Your task to perform on an android device: create a new album in the google photos Image 0: 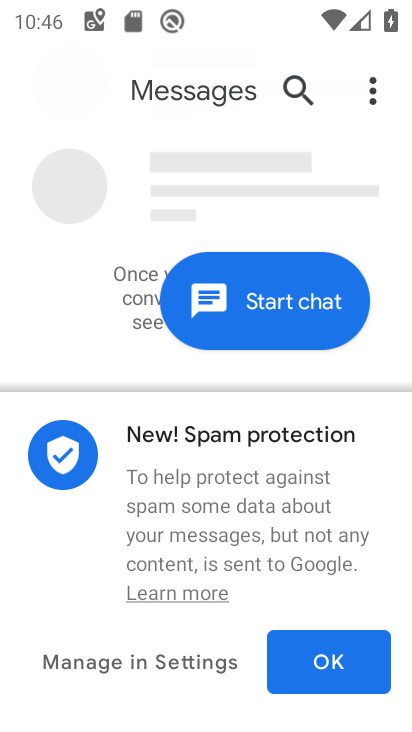
Step 0: drag from (242, 640) to (348, 34)
Your task to perform on an android device: create a new album in the google photos Image 1: 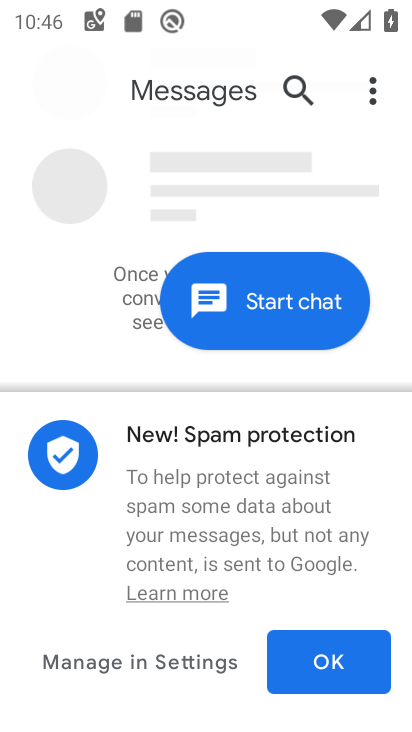
Step 1: press home button
Your task to perform on an android device: create a new album in the google photos Image 2: 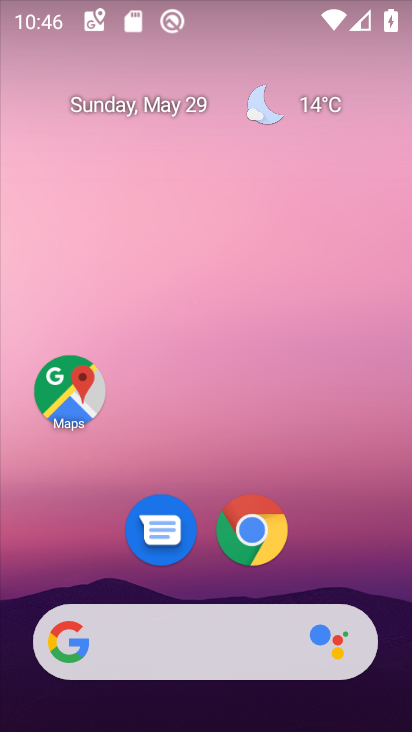
Step 2: drag from (213, 628) to (196, 17)
Your task to perform on an android device: create a new album in the google photos Image 3: 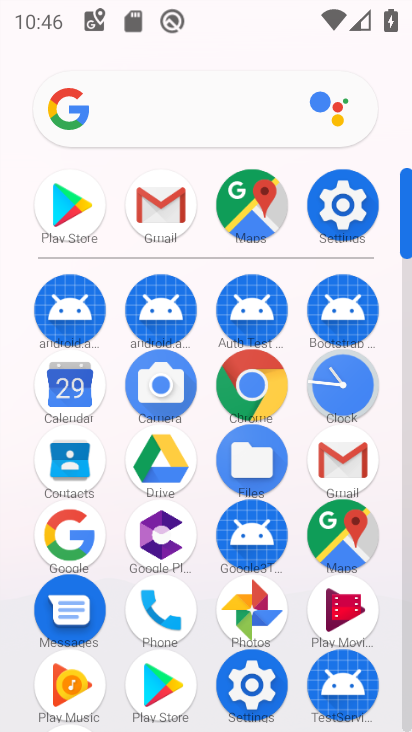
Step 3: click (249, 609)
Your task to perform on an android device: create a new album in the google photos Image 4: 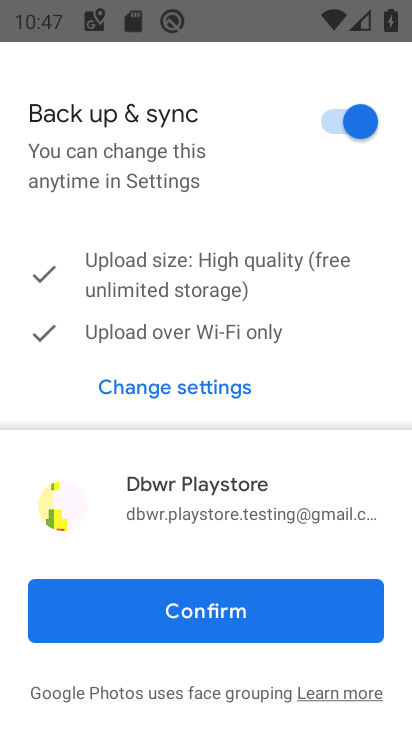
Step 4: click (207, 609)
Your task to perform on an android device: create a new album in the google photos Image 5: 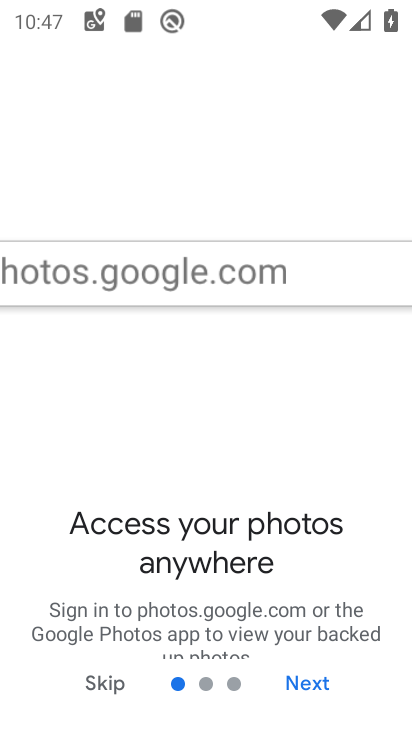
Step 5: click (98, 684)
Your task to perform on an android device: create a new album in the google photos Image 6: 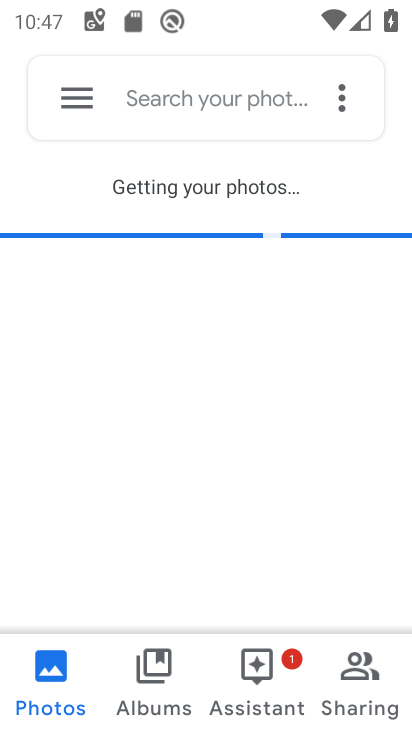
Step 6: click (254, 667)
Your task to perform on an android device: create a new album in the google photos Image 7: 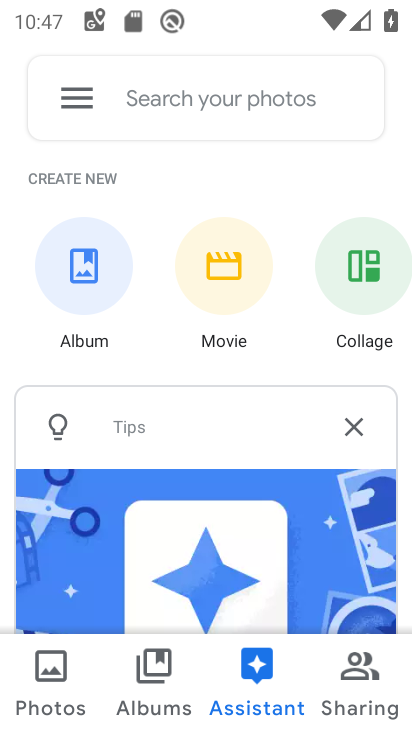
Step 7: click (88, 277)
Your task to perform on an android device: create a new album in the google photos Image 8: 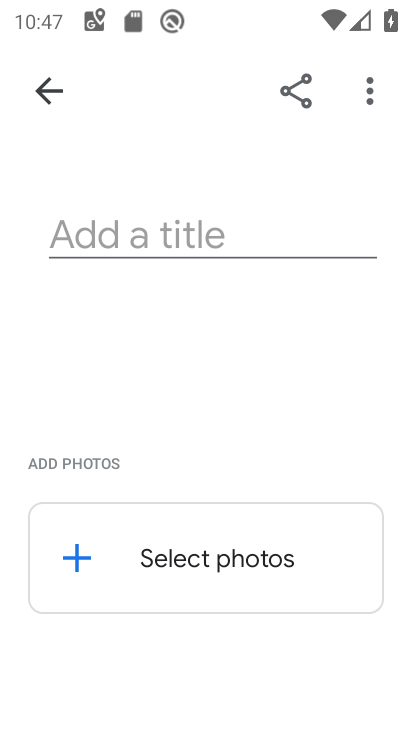
Step 8: click (202, 241)
Your task to perform on an android device: create a new album in the google photos Image 9: 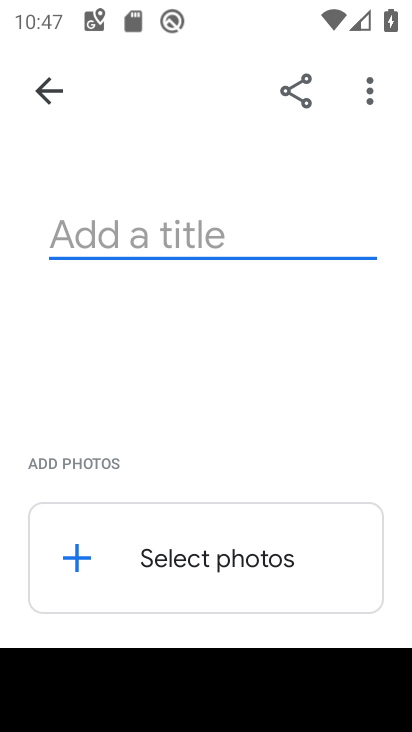
Step 9: type "jgkds"
Your task to perform on an android device: create a new album in the google photos Image 10: 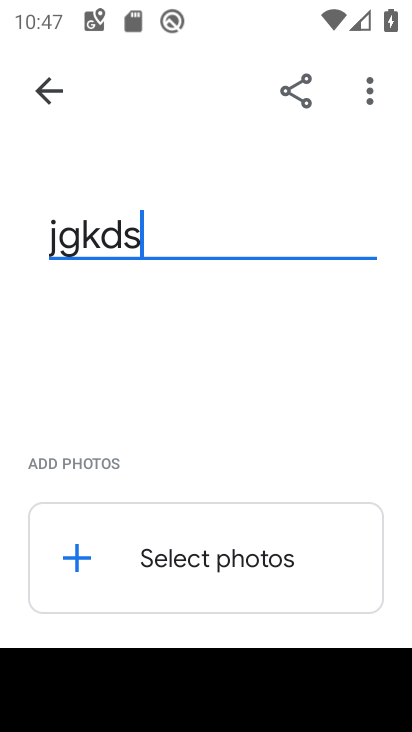
Step 10: click (235, 553)
Your task to perform on an android device: create a new album in the google photos Image 11: 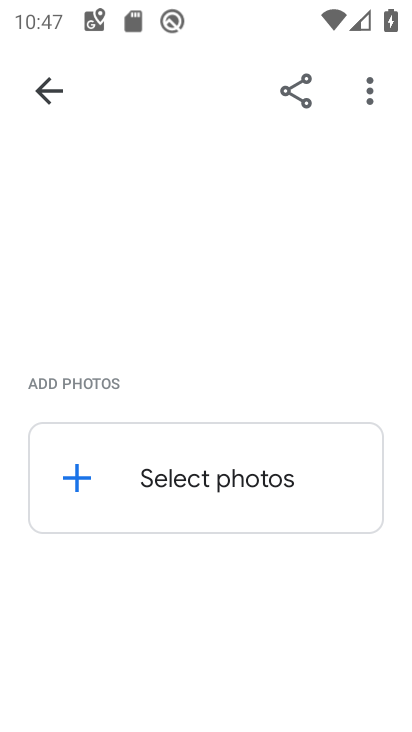
Step 11: click (76, 530)
Your task to perform on an android device: create a new album in the google photos Image 12: 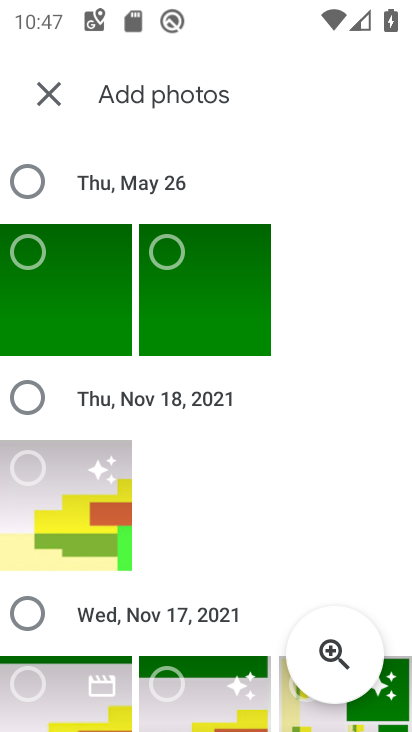
Step 12: click (26, 172)
Your task to perform on an android device: create a new album in the google photos Image 13: 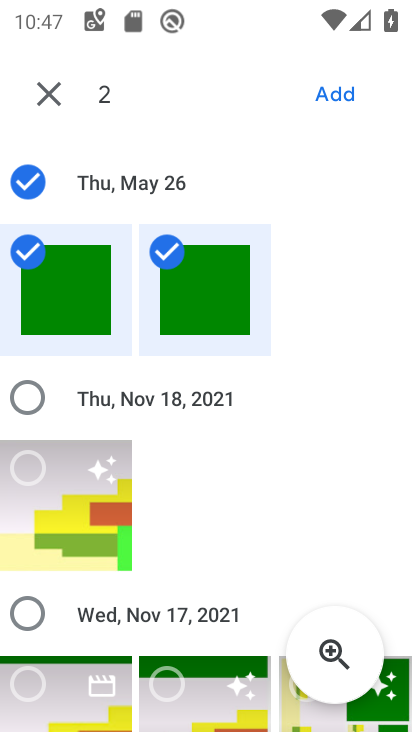
Step 13: click (18, 416)
Your task to perform on an android device: create a new album in the google photos Image 14: 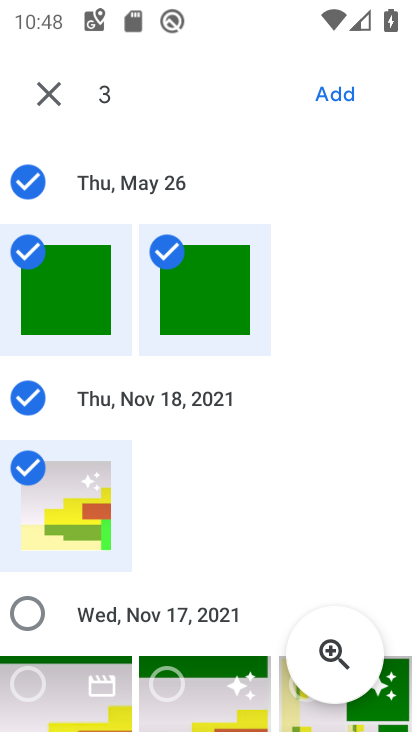
Step 14: click (325, 94)
Your task to perform on an android device: create a new album in the google photos Image 15: 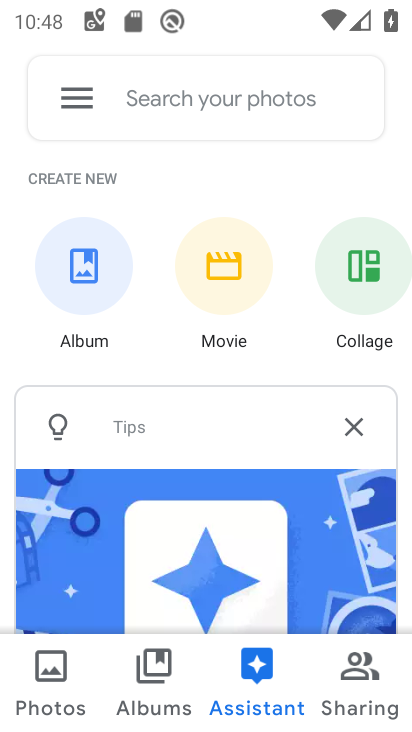
Step 15: task complete